Your task to perform on an android device: find which apps use the phone's location Image 0: 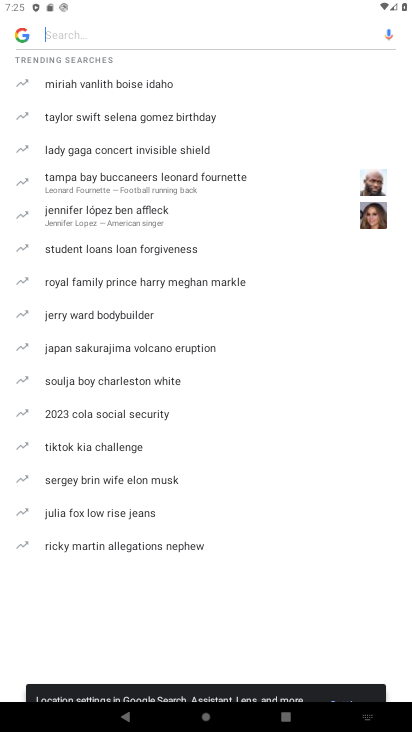
Step 0: press home button
Your task to perform on an android device: find which apps use the phone's location Image 1: 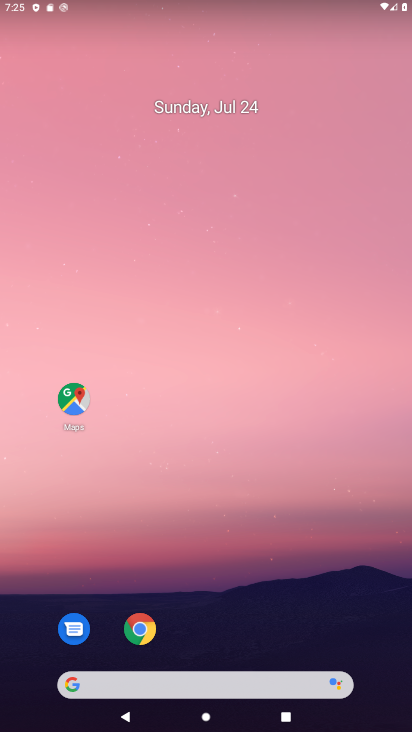
Step 1: drag from (368, 642) to (360, 144)
Your task to perform on an android device: find which apps use the phone's location Image 2: 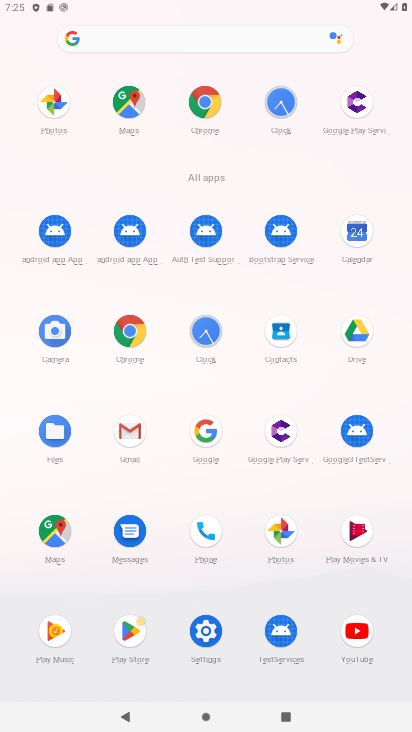
Step 2: click (208, 634)
Your task to perform on an android device: find which apps use the phone's location Image 3: 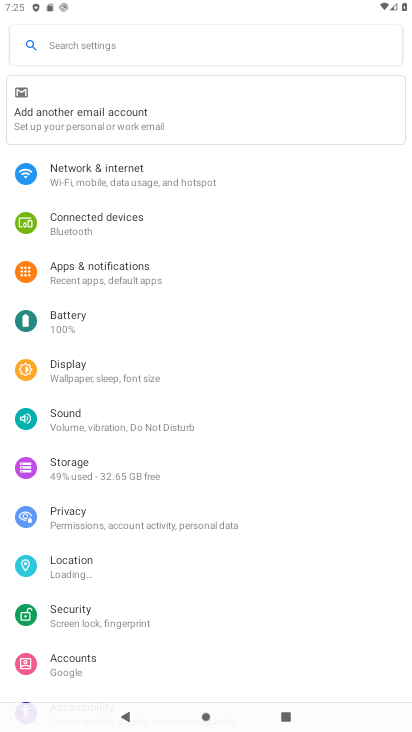
Step 3: drag from (323, 348) to (333, 542)
Your task to perform on an android device: find which apps use the phone's location Image 4: 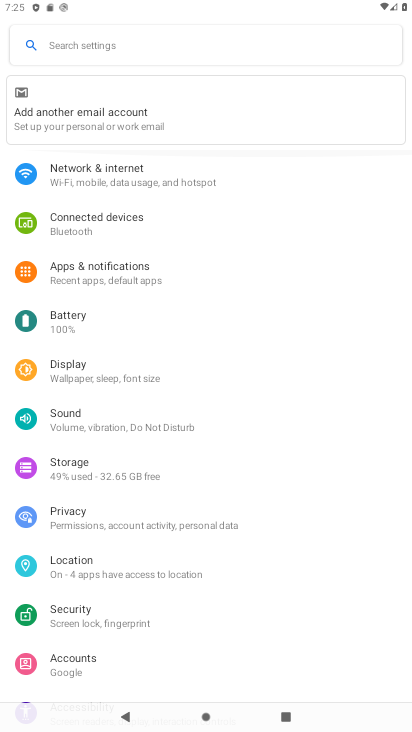
Step 4: click (212, 584)
Your task to perform on an android device: find which apps use the phone's location Image 5: 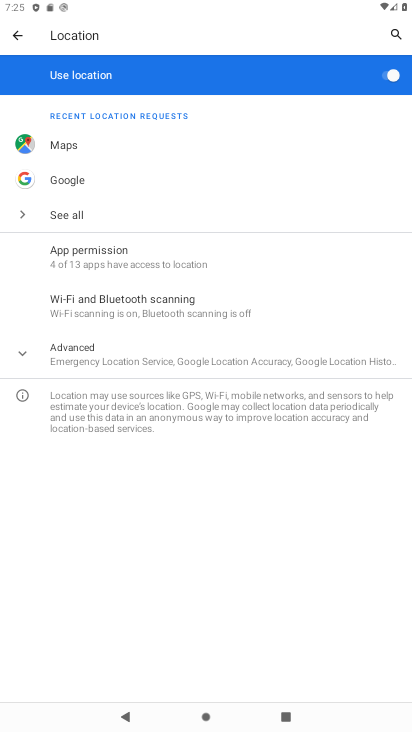
Step 5: click (219, 257)
Your task to perform on an android device: find which apps use the phone's location Image 6: 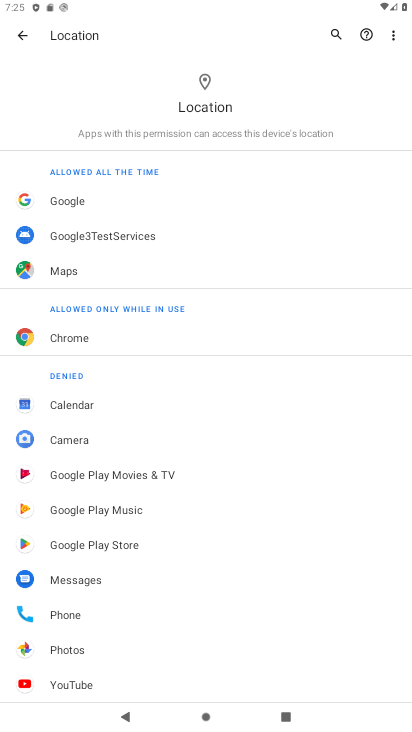
Step 6: drag from (331, 555) to (329, 408)
Your task to perform on an android device: find which apps use the phone's location Image 7: 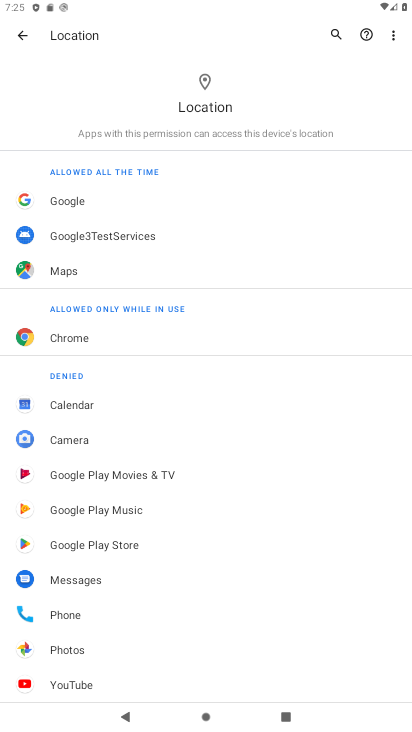
Step 7: click (101, 647)
Your task to perform on an android device: find which apps use the phone's location Image 8: 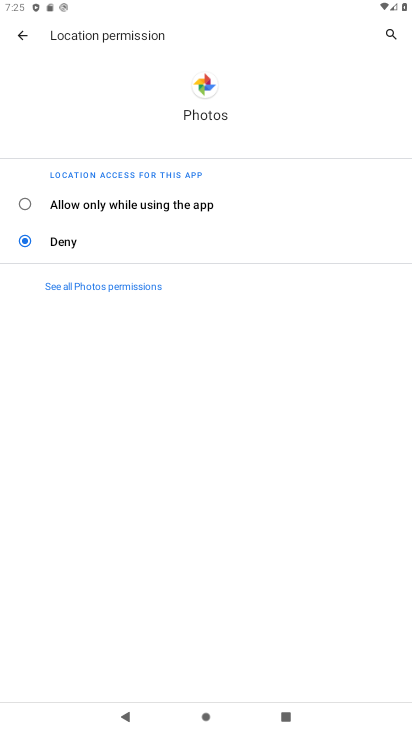
Step 8: click (57, 205)
Your task to perform on an android device: find which apps use the phone's location Image 9: 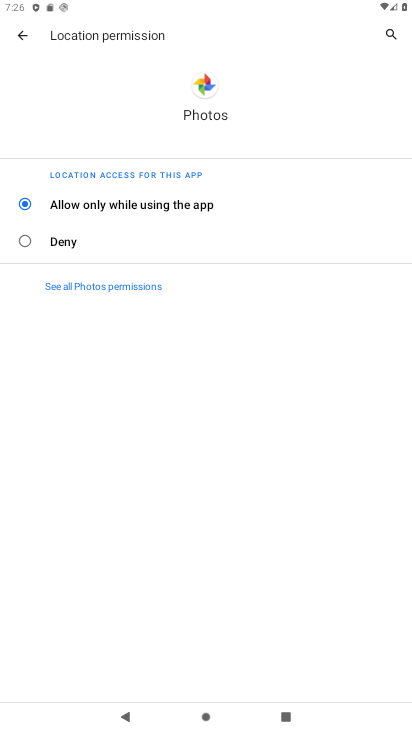
Step 9: task complete